Your task to perform on an android device: Open Google Maps Image 0: 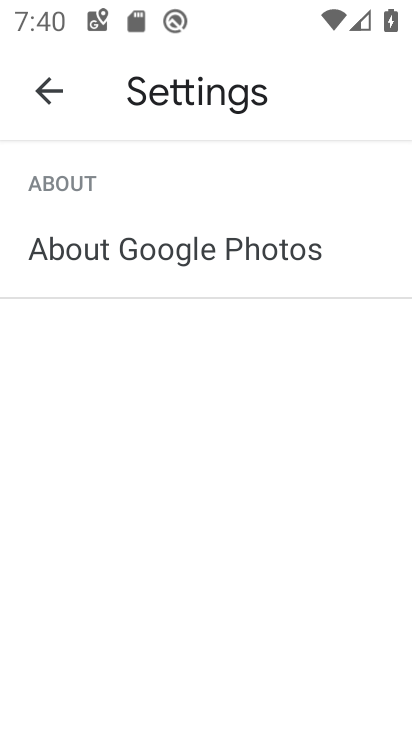
Step 0: press back button
Your task to perform on an android device: Open Google Maps Image 1: 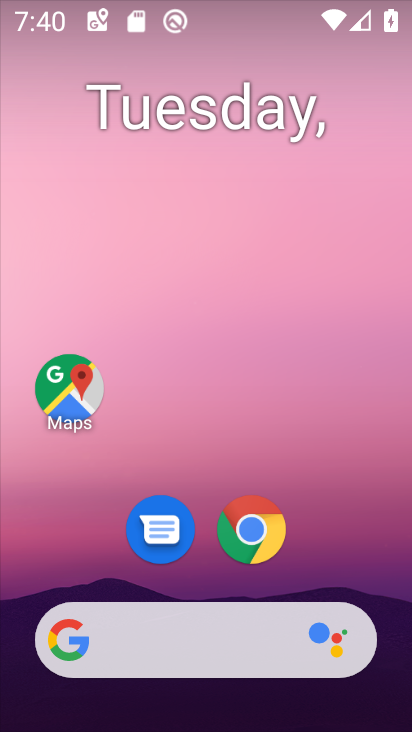
Step 1: click (66, 401)
Your task to perform on an android device: Open Google Maps Image 2: 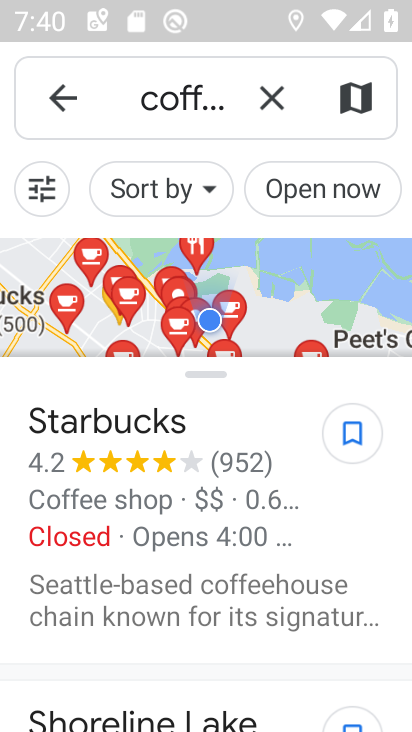
Step 2: task complete